Your task to perform on an android device: turn off priority inbox in the gmail app Image 0: 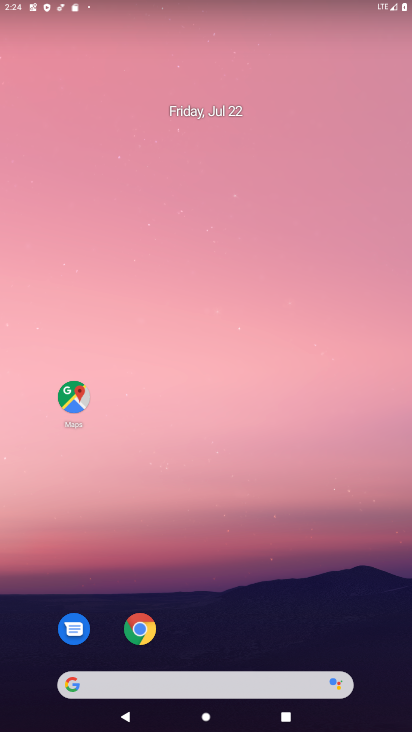
Step 0: drag from (214, 682) to (233, 27)
Your task to perform on an android device: turn off priority inbox in the gmail app Image 1: 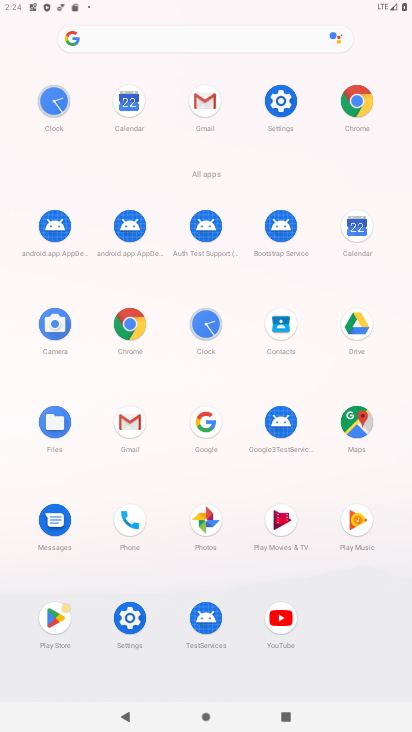
Step 1: drag from (194, 692) to (169, 247)
Your task to perform on an android device: turn off priority inbox in the gmail app Image 2: 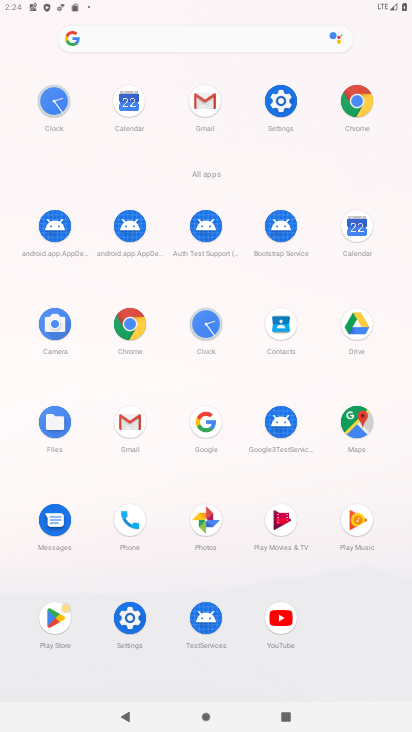
Step 2: click (127, 424)
Your task to perform on an android device: turn off priority inbox in the gmail app Image 3: 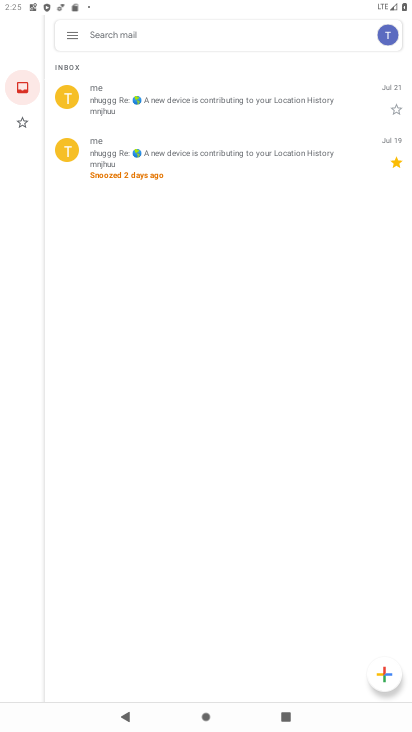
Step 3: click (71, 43)
Your task to perform on an android device: turn off priority inbox in the gmail app Image 4: 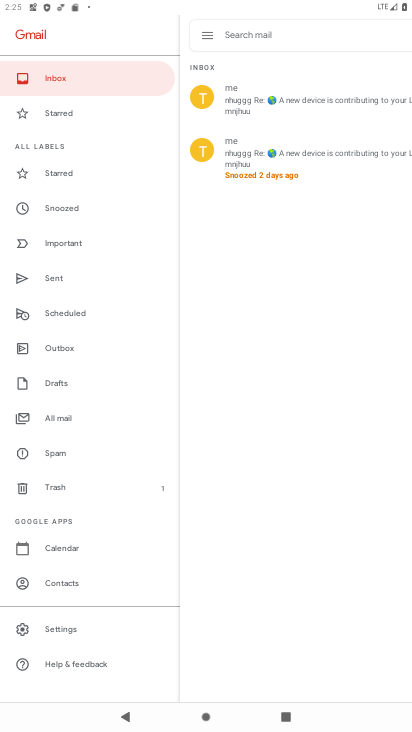
Step 4: click (63, 636)
Your task to perform on an android device: turn off priority inbox in the gmail app Image 5: 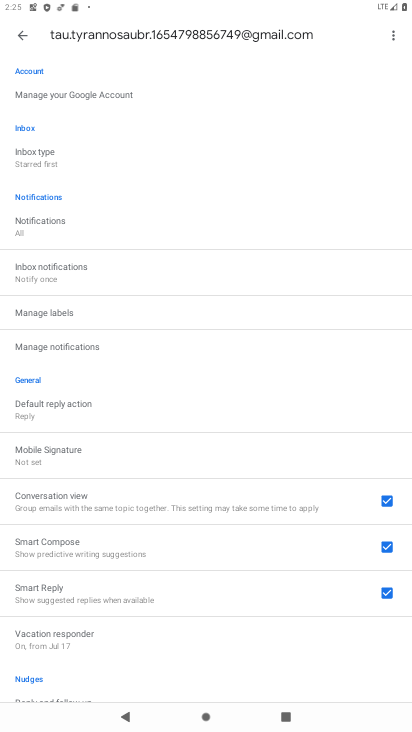
Step 5: click (46, 167)
Your task to perform on an android device: turn off priority inbox in the gmail app Image 6: 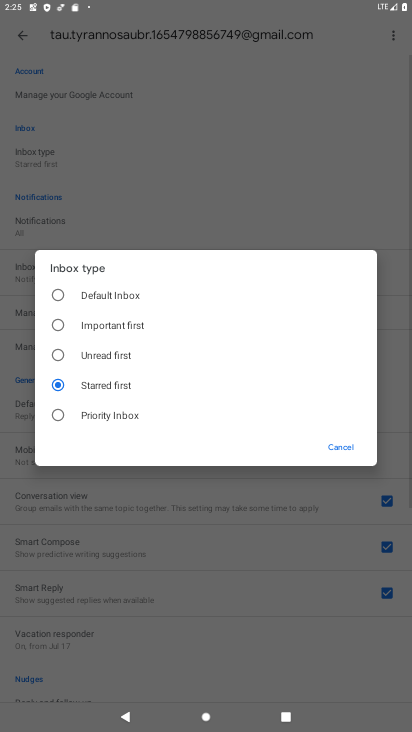
Step 6: click (103, 301)
Your task to perform on an android device: turn off priority inbox in the gmail app Image 7: 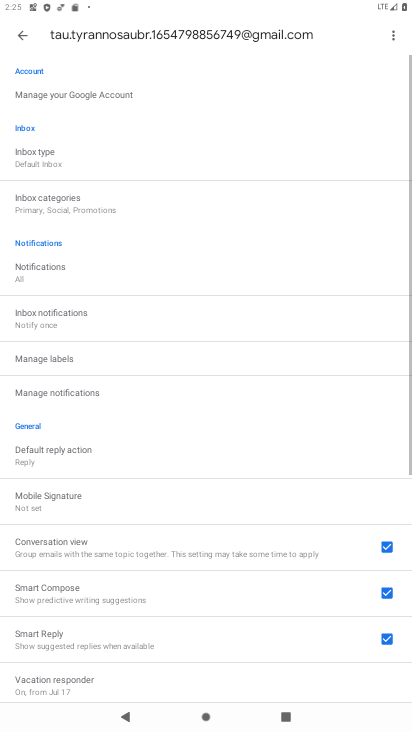
Step 7: task complete